Your task to perform on an android device: Go to network settings Image 0: 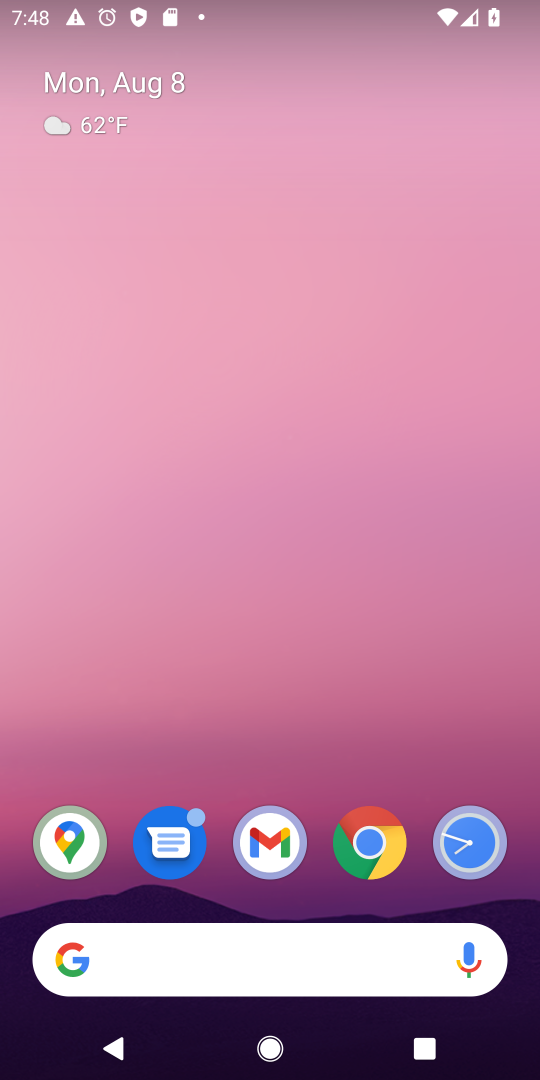
Step 0: drag from (516, 1010) to (462, 176)
Your task to perform on an android device: Go to network settings Image 1: 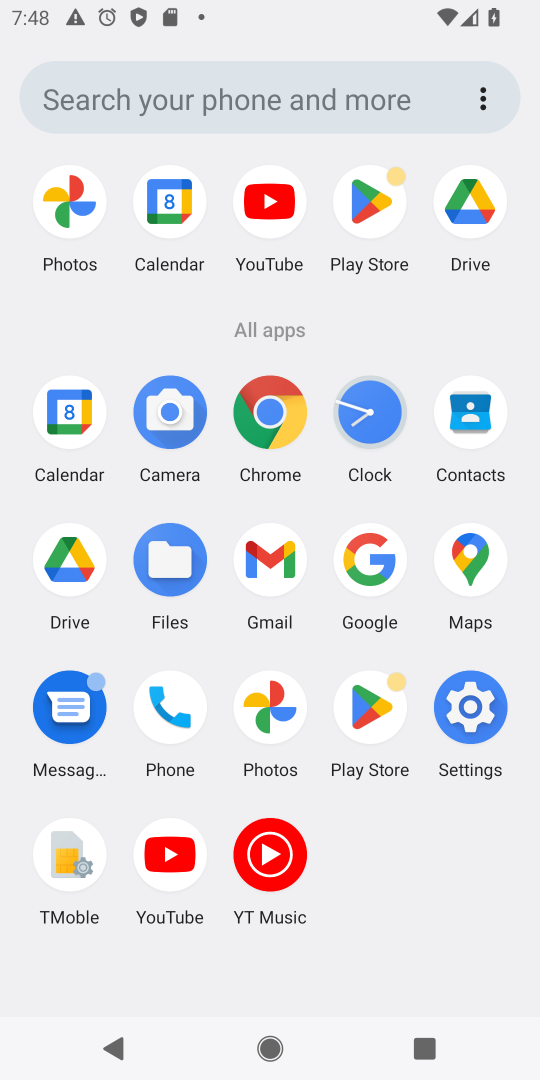
Step 1: click (484, 711)
Your task to perform on an android device: Go to network settings Image 2: 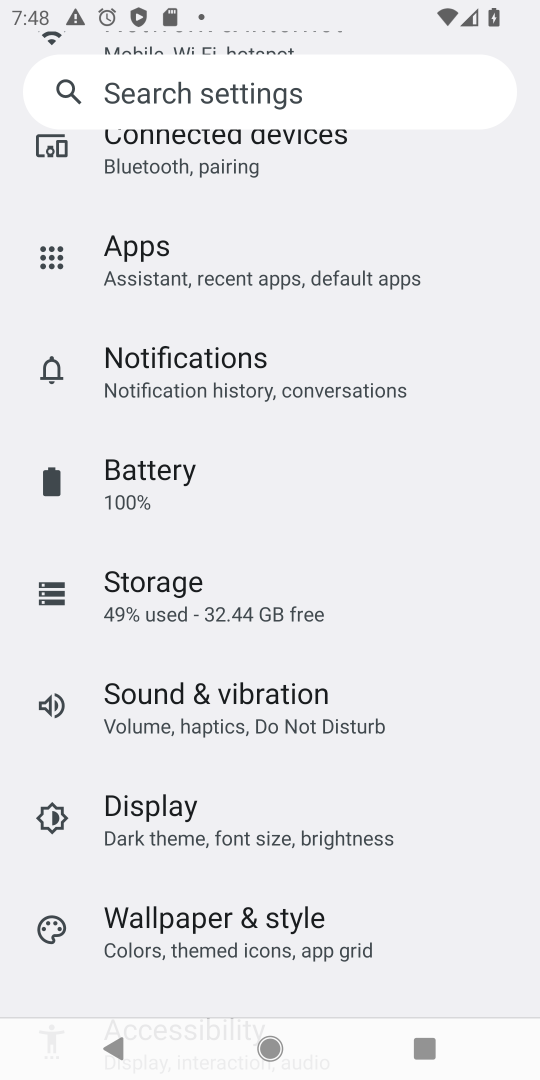
Step 2: drag from (421, 231) to (456, 944)
Your task to perform on an android device: Go to network settings Image 3: 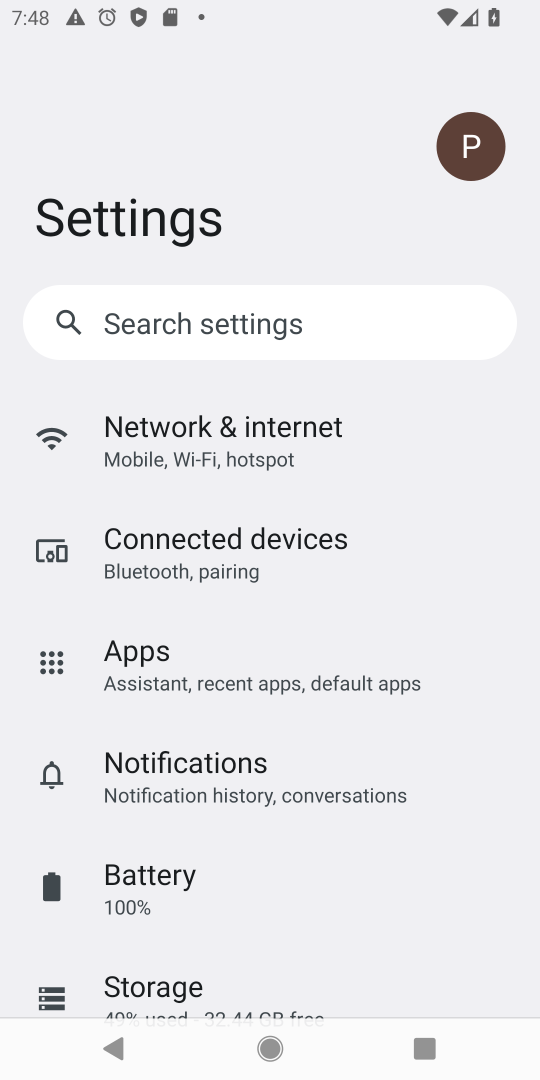
Step 3: click (176, 433)
Your task to perform on an android device: Go to network settings Image 4: 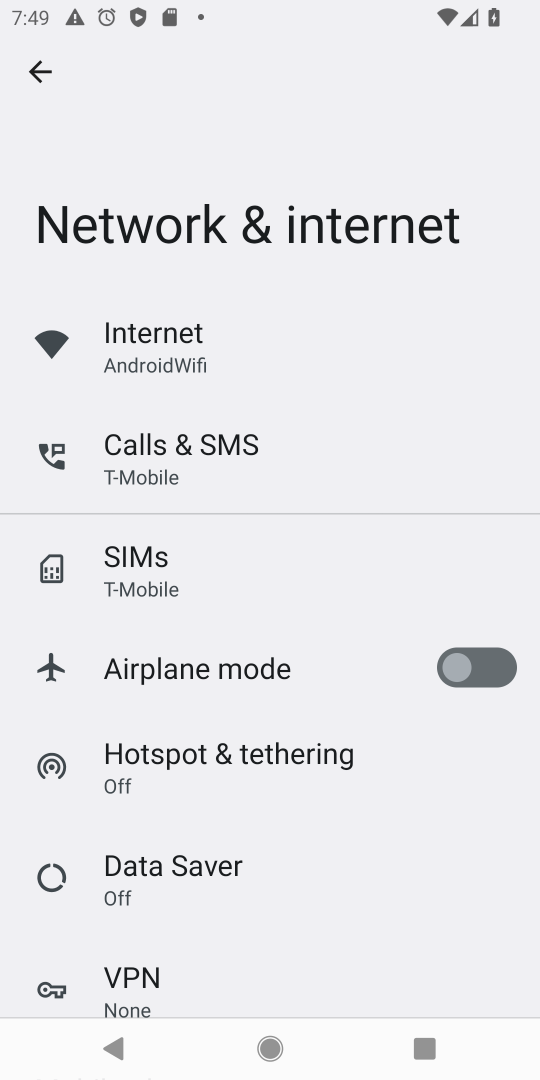
Step 4: task complete